Your task to perform on an android device: check out phone information Image 0: 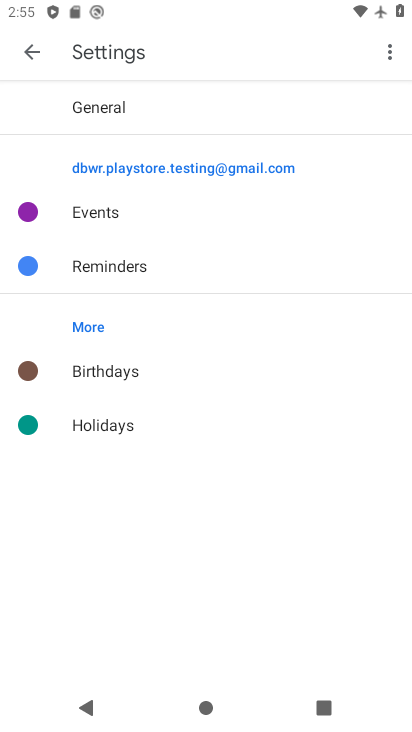
Step 0: press back button
Your task to perform on an android device: check out phone information Image 1: 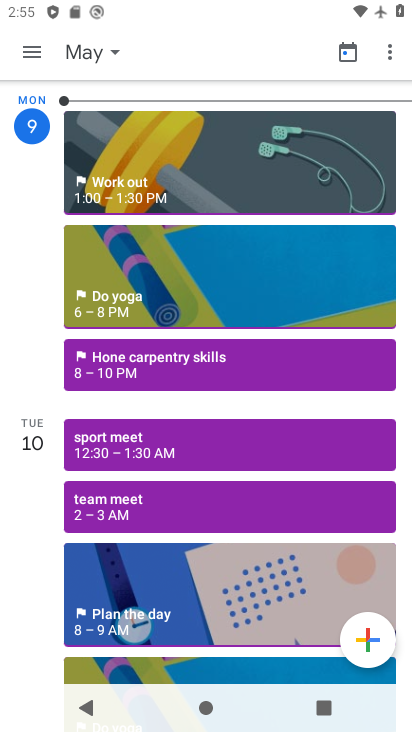
Step 1: press back button
Your task to perform on an android device: check out phone information Image 2: 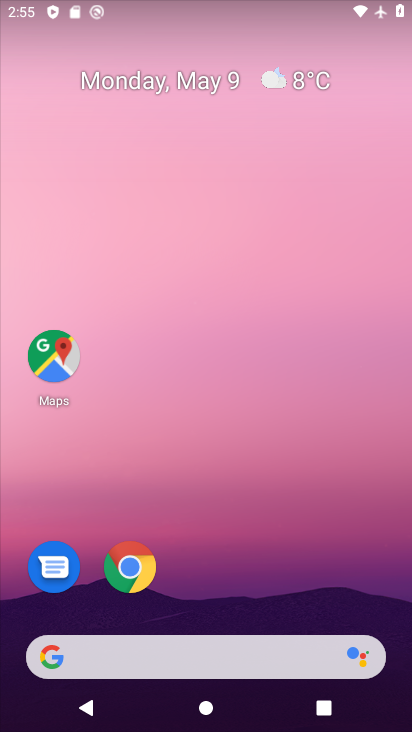
Step 2: drag from (329, 535) to (248, 2)
Your task to perform on an android device: check out phone information Image 3: 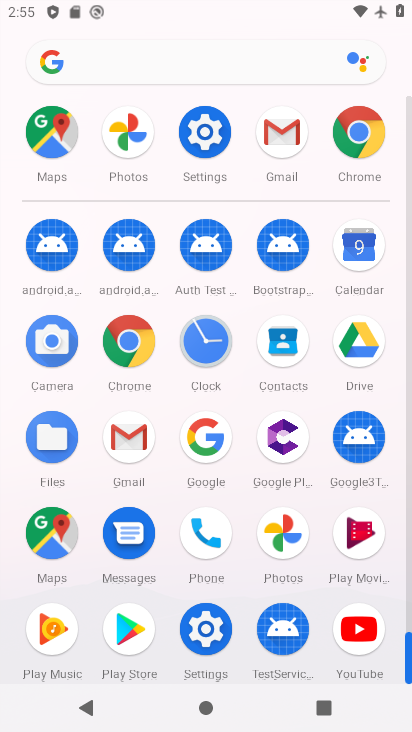
Step 3: click (205, 126)
Your task to perform on an android device: check out phone information Image 4: 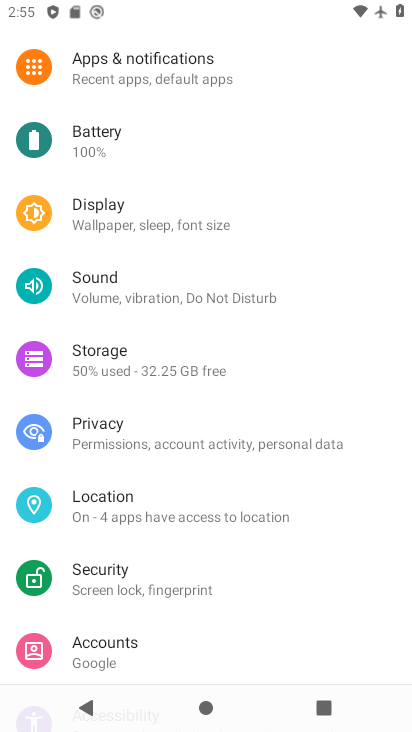
Step 4: drag from (292, 572) to (301, 75)
Your task to perform on an android device: check out phone information Image 5: 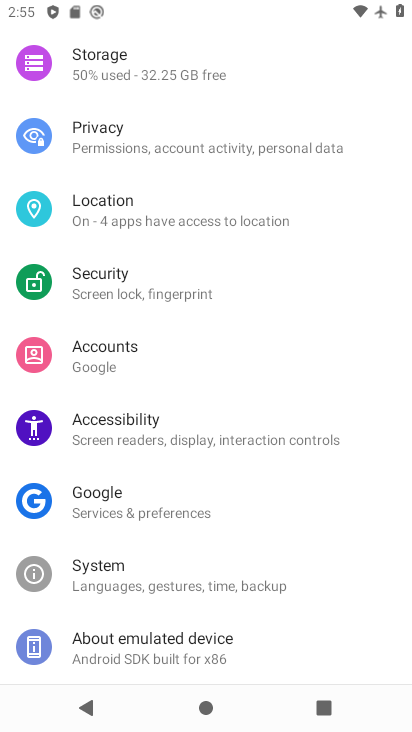
Step 5: drag from (260, 579) to (257, 246)
Your task to perform on an android device: check out phone information Image 6: 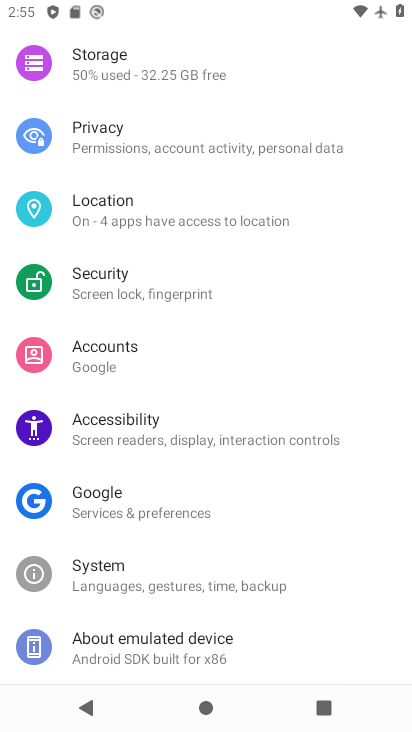
Step 6: click (191, 647)
Your task to perform on an android device: check out phone information Image 7: 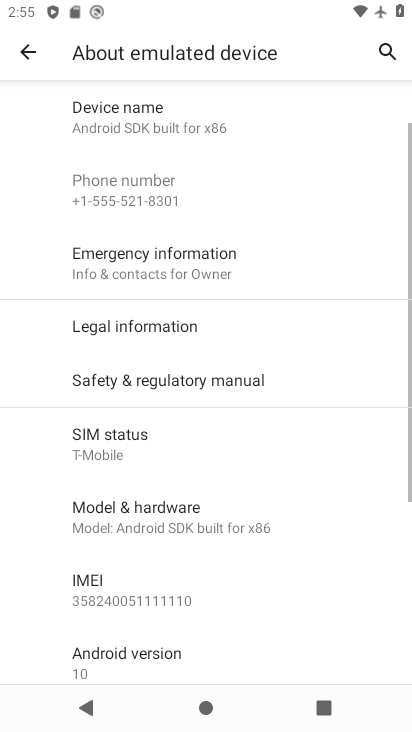
Step 7: drag from (256, 555) to (285, 150)
Your task to perform on an android device: check out phone information Image 8: 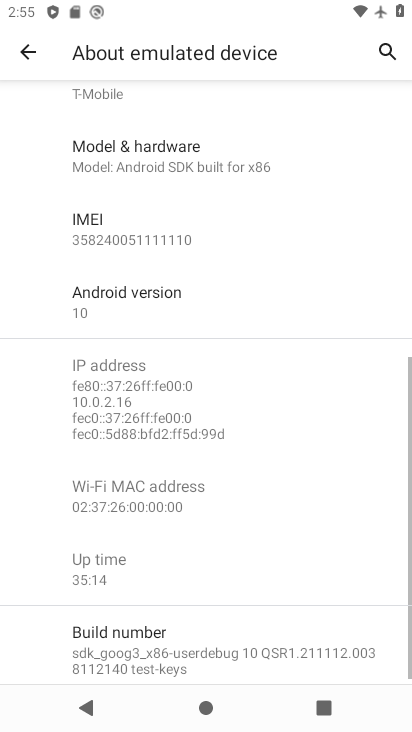
Step 8: drag from (233, 494) to (273, 121)
Your task to perform on an android device: check out phone information Image 9: 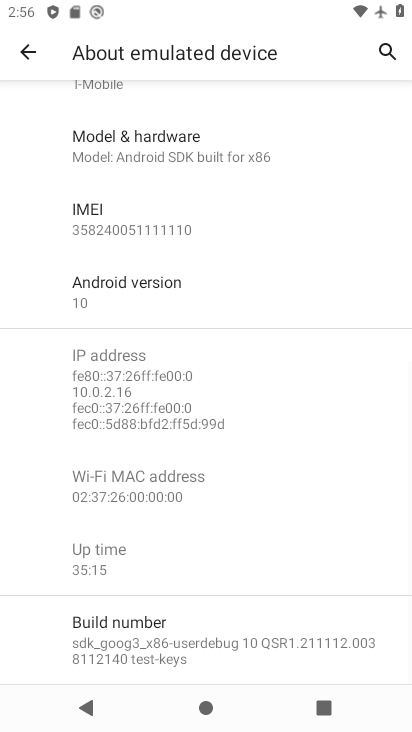
Step 9: drag from (273, 128) to (230, 599)
Your task to perform on an android device: check out phone information Image 10: 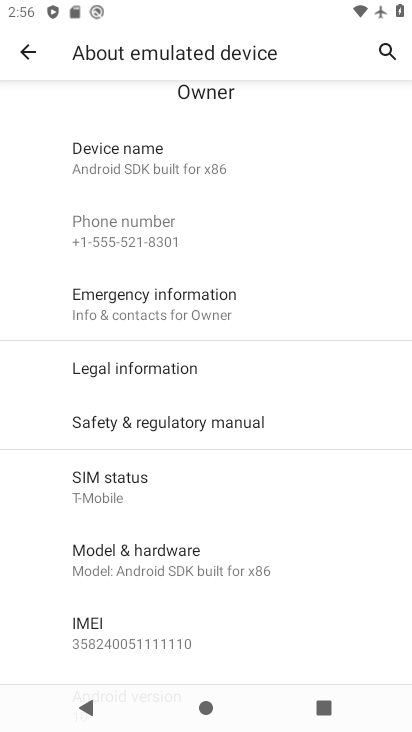
Step 10: drag from (281, 250) to (291, 644)
Your task to perform on an android device: check out phone information Image 11: 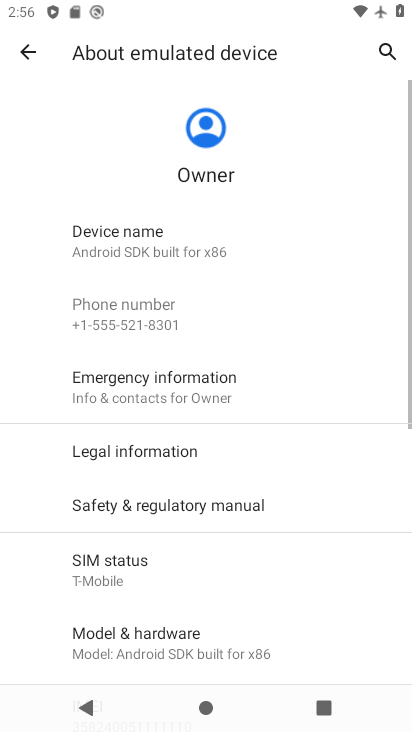
Step 11: click (176, 386)
Your task to perform on an android device: check out phone information Image 12: 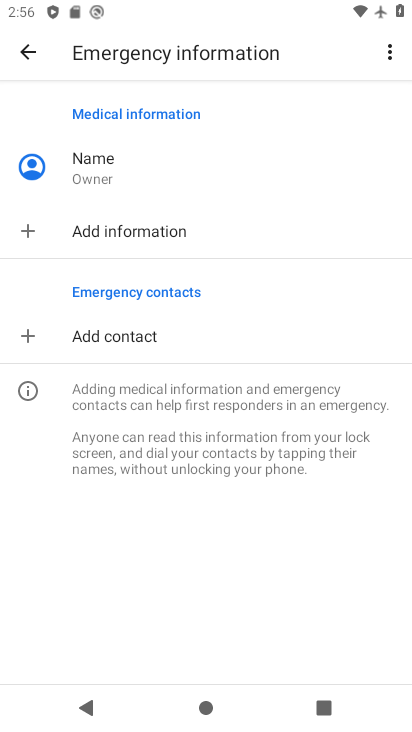
Step 12: task complete